Your task to perform on an android device: delete location history Image 0: 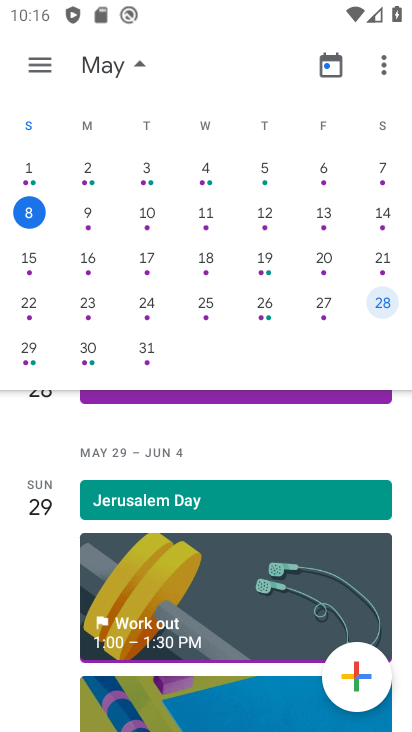
Step 0: press home button
Your task to perform on an android device: delete location history Image 1: 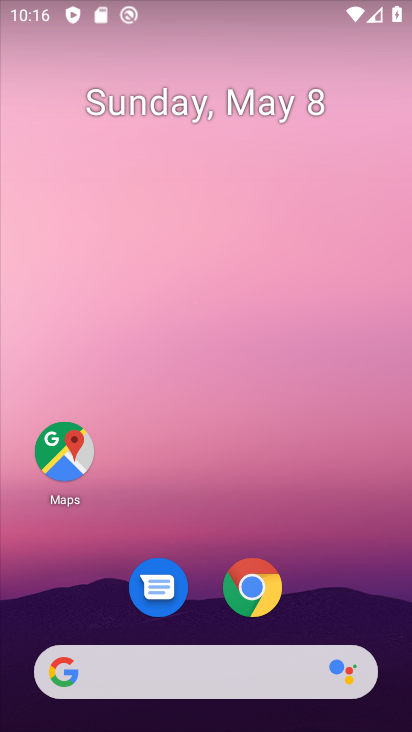
Step 1: click (56, 458)
Your task to perform on an android device: delete location history Image 2: 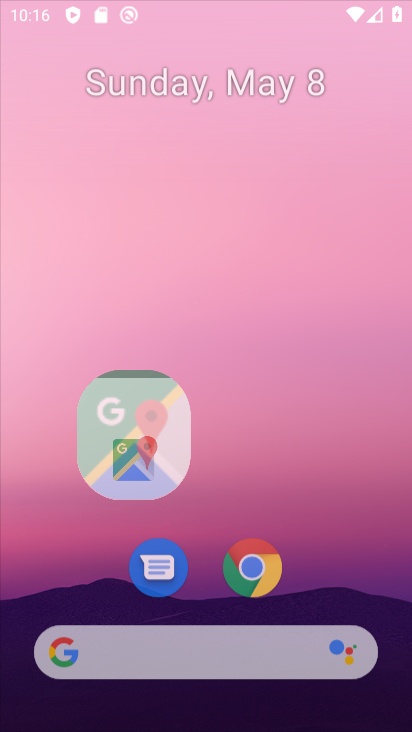
Step 2: click (56, 458)
Your task to perform on an android device: delete location history Image 3: 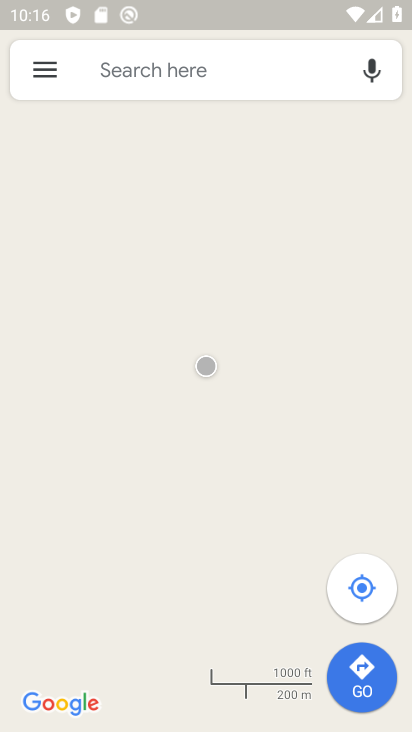
Step 3: click (50, 71)
Your task to perform on an android device: delete location history Image 4: 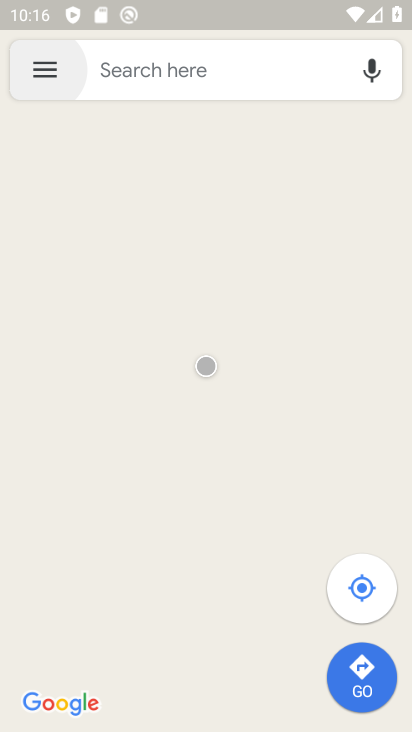
Step 4: click (37, 68)
Your task to perform on an android device: delete location history Image 5: 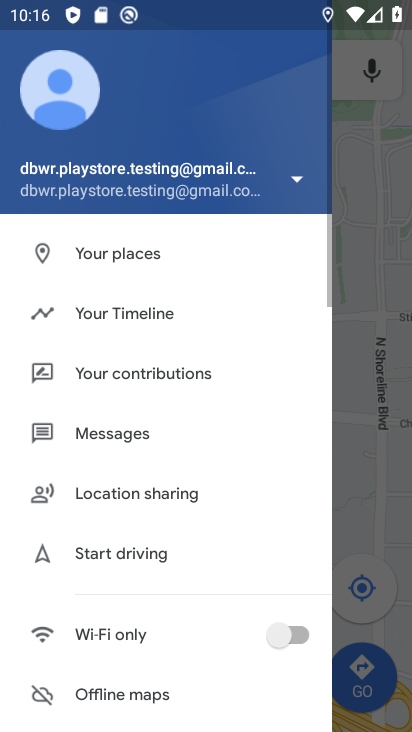
Step 5: click (139, 309)
Your task to perform on an android device: delete location history Image 6: 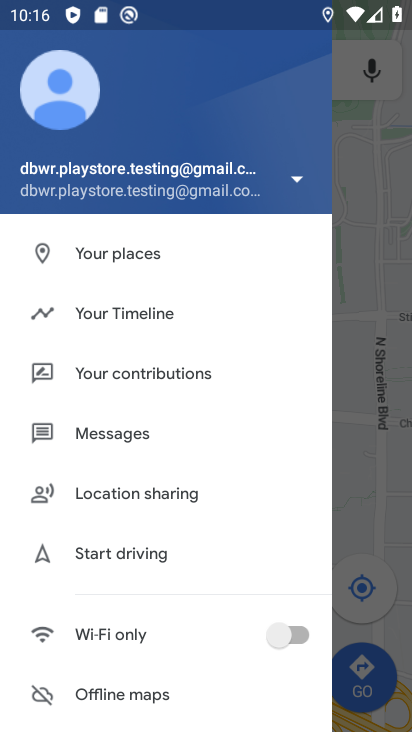
Step 6: click (142, 310)
Your task to perform on an android device: delete location history Image 7: 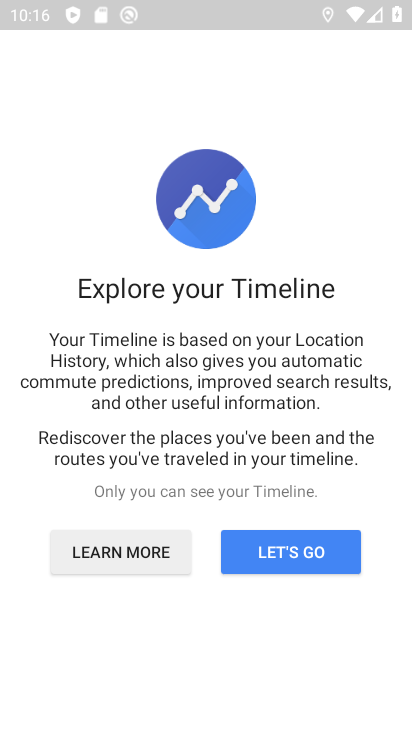
Step 7: click (142, 310)
Your task to perform on an android device: delete location history Image 8: 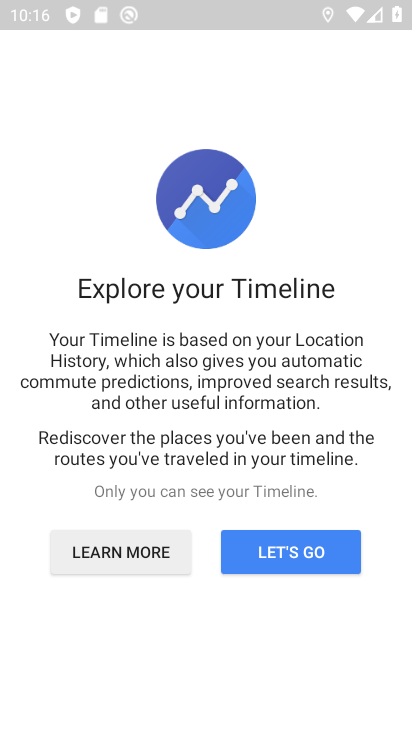
Step 8: click (290, 544)
Your task to perform on an android device: delete location history Image 9: 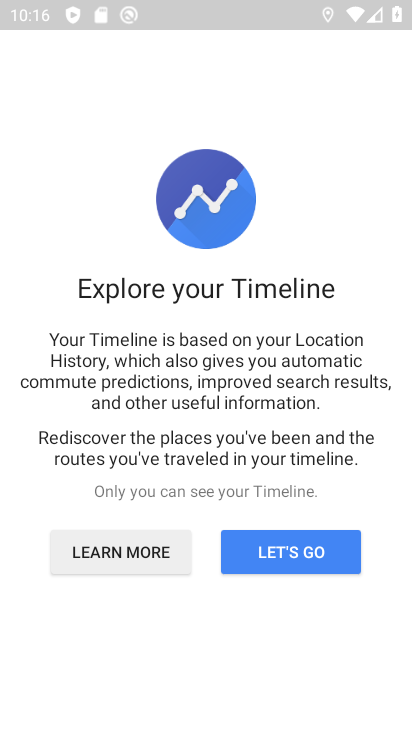
Step 9: click (288, 549)
Your task to perform on an android device: delete location history Image 10: 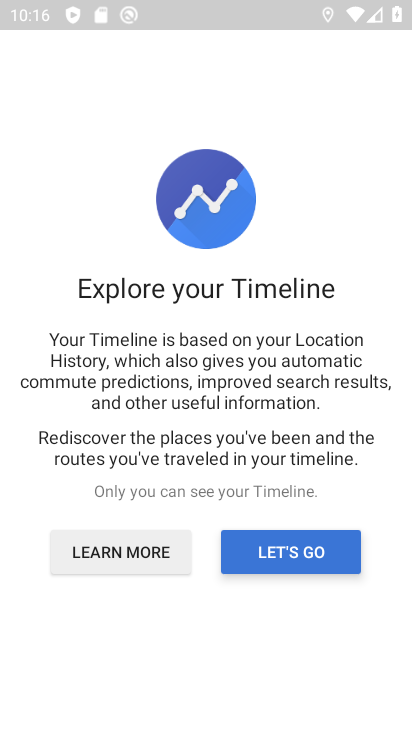
Step 10: click (288, 549)
Your task to perform on an android device: delete location history Image 11: 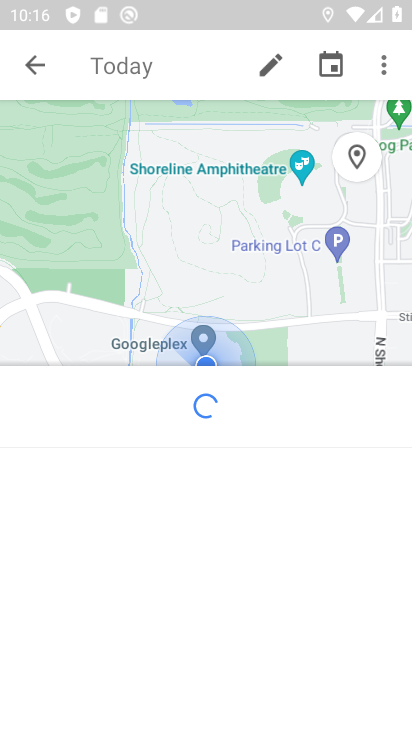
Step 11: click (294, 551)
Your task to perform on an android device: delete location history Image 12: 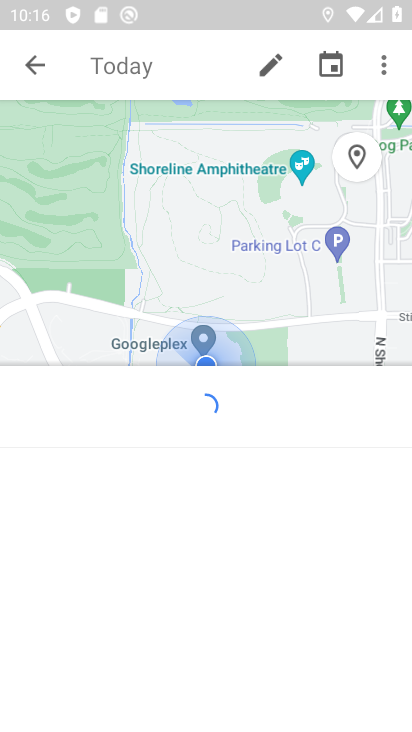
Step 12: click (298, 544)
Your task to perform on an android device: delete location history Image 13: 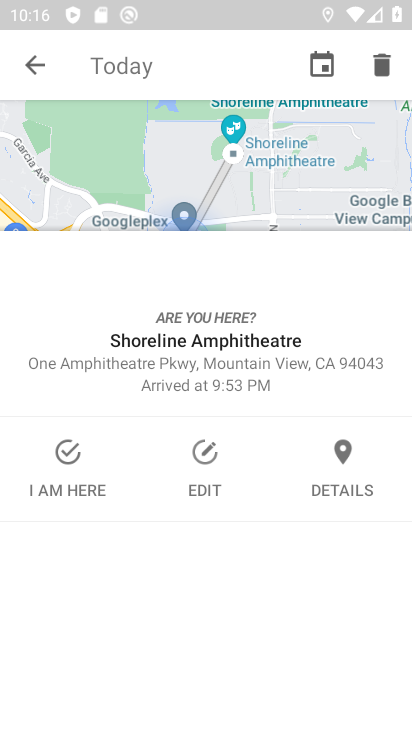
Step 13: drag from (378, 69) to (393, 512)
Your task to perform on an android device: delete location history Image 14: 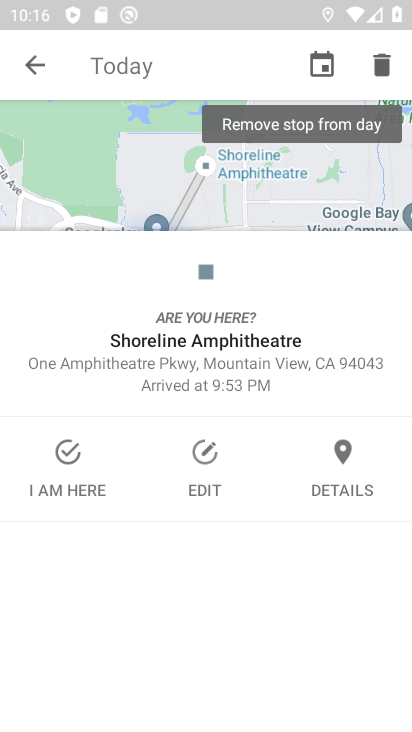
Step 14: click (173, 187)
Your task to perform on an android device: delete location history Image 15: 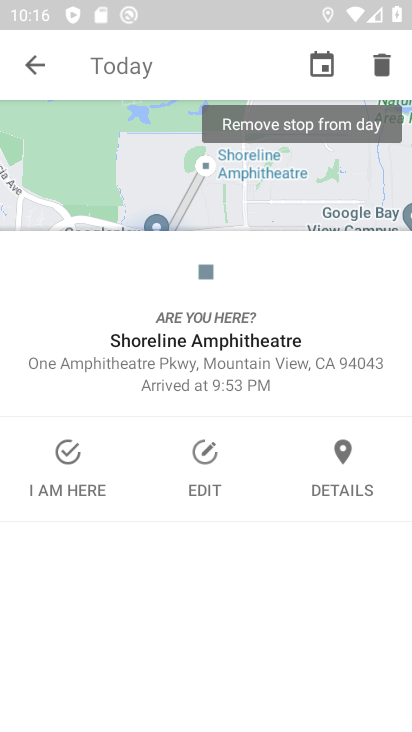
Step 15: click (171, 187)
Your task to perform on an android device: delete location history Image 16: 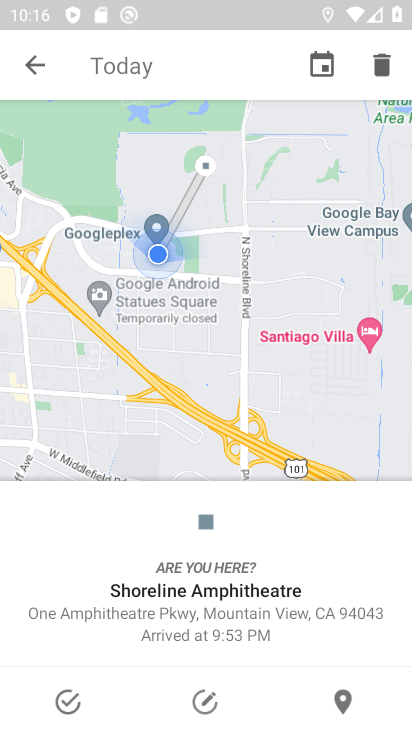
Step 16: click (171, 187)
Your task to perform on an android device: delete location history Image 17: 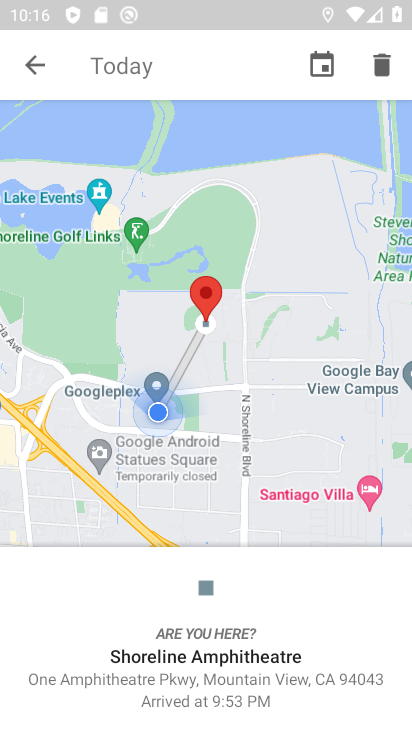
Step 17: click (170, 184)
Your task to perform on an android device: delete location history Image 18: 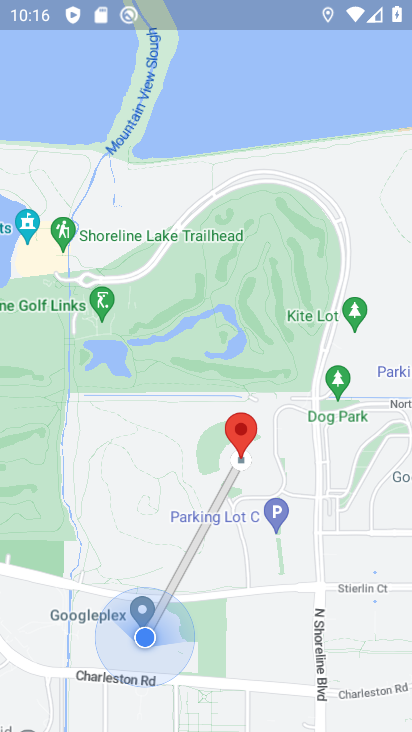
Step 18: drag from (140, 67) to (198, 511)
Your task to perform on an android device: delete location history Image 19: 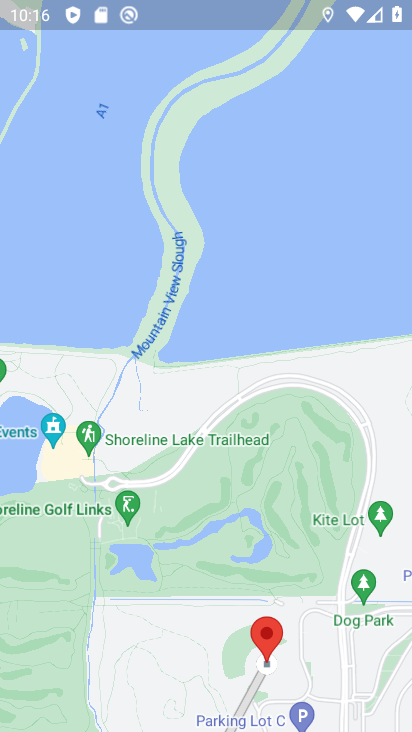
Step 19: drag from (188, 206) to (276, 614)
Your task to perform on an android device: delete location history Image 20: 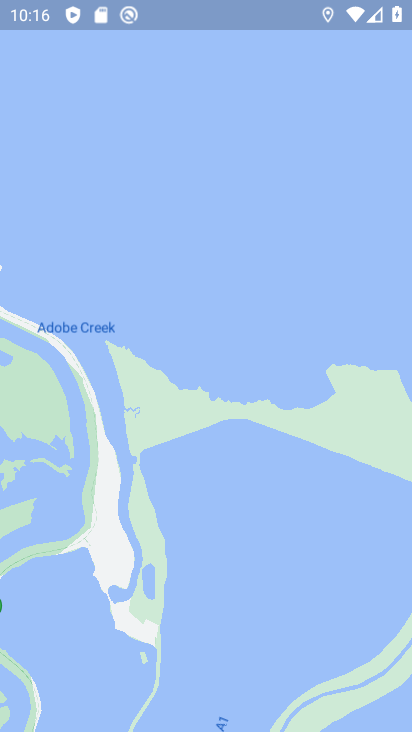
Step 20: drag from (135, 170) to (270, 677)
Your task to perform on an android device: delete location history Image 21: 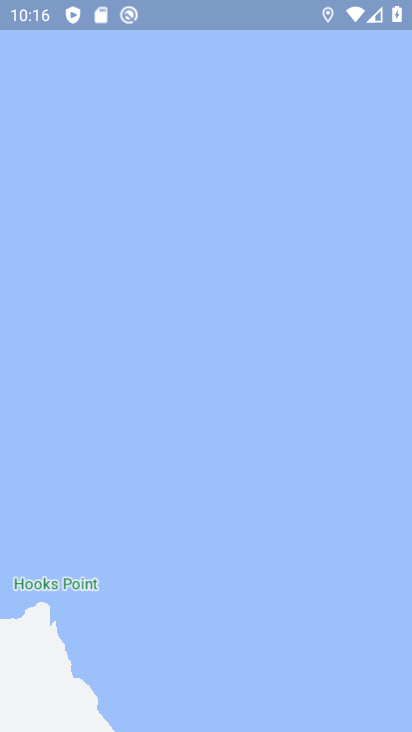
Step 21: drag from (144, 116) to (208, 597)
Your task to perform on an android device: delete location history Image 22: 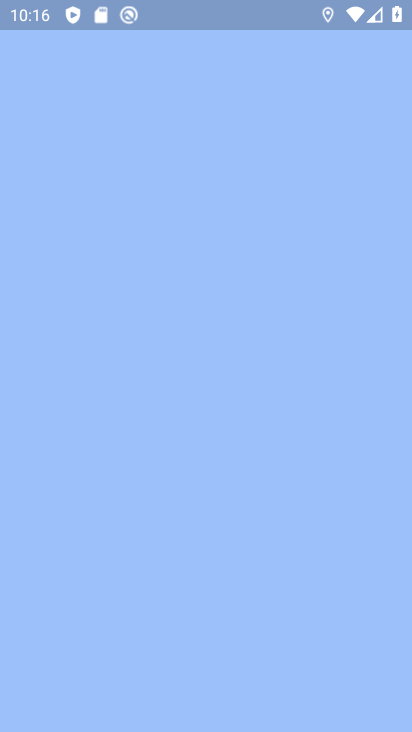
Step 22: press back button
Your task to perform on an android device: delete location history Image 23: 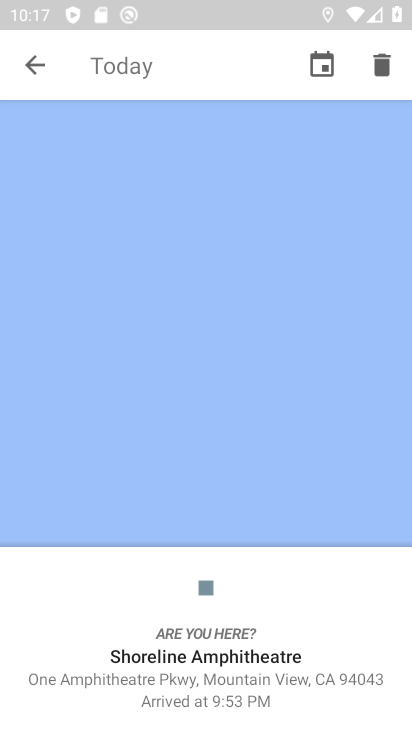
Step 23: click (23, 60)
Your task to perform on an android device: delete location history Image 24: 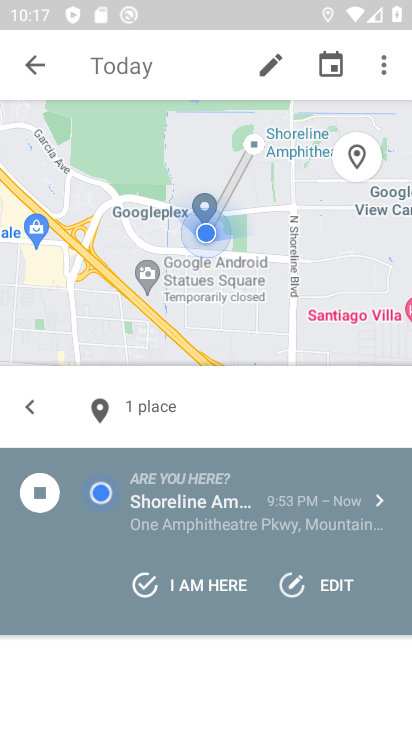
Step 24: click (383, 68)
Your task to perform on an android device: delete location history Image 25: 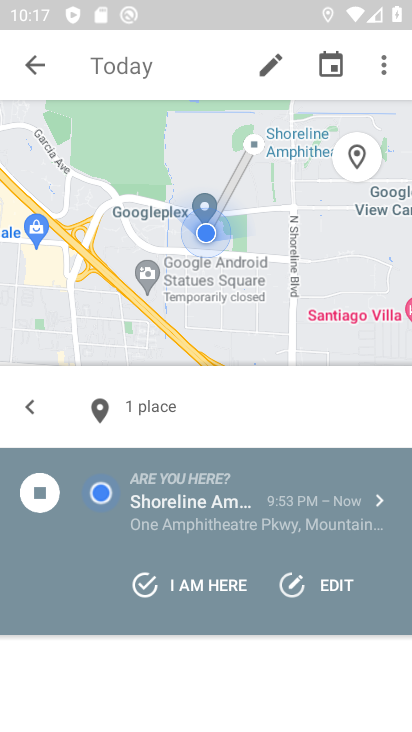
Step 25: click (394, 53)
Your task to perform on an android device: delete location history Image 26: 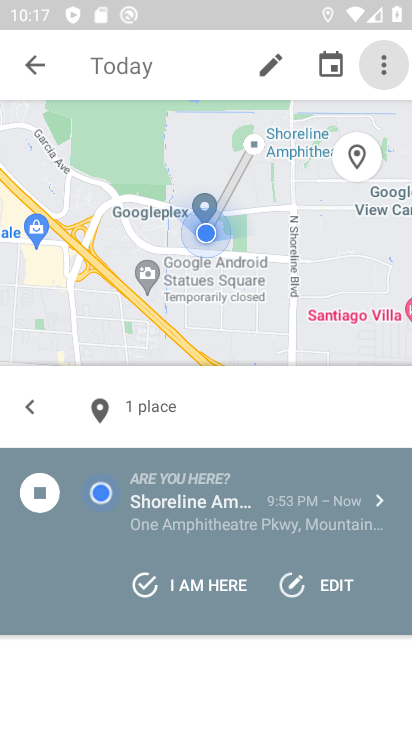
Step 26: click (379, 53)
Your task to perform on an android device: delete location history Image 27: 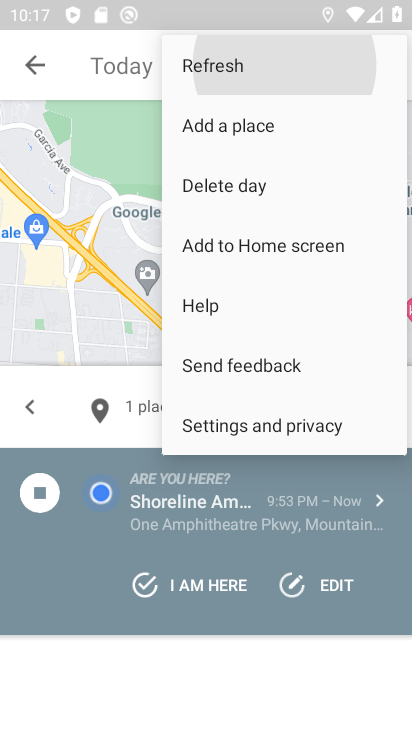
Step 27: click (385, 58)
Your task to perform on an android device: delete location history Image 28: 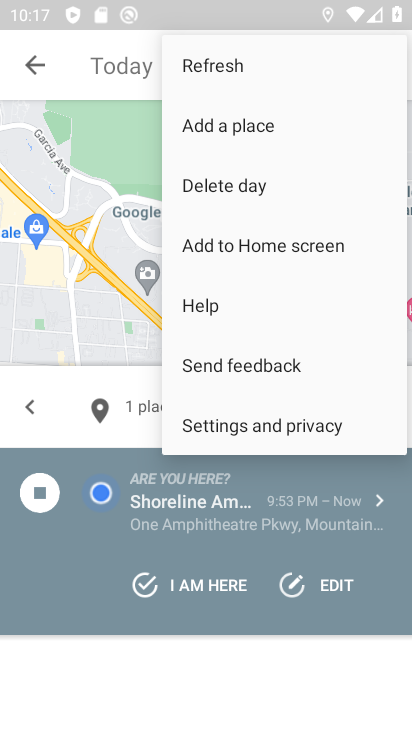
Step 28: click (262, 428)
Your task to perform on an android device: delete location history Image 29: 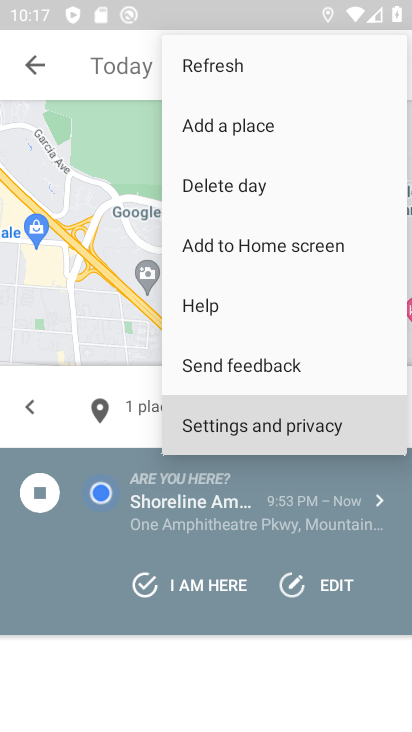
Step 29: click (262, 428)
Your task to perform on an android device: delete location history Image 30: 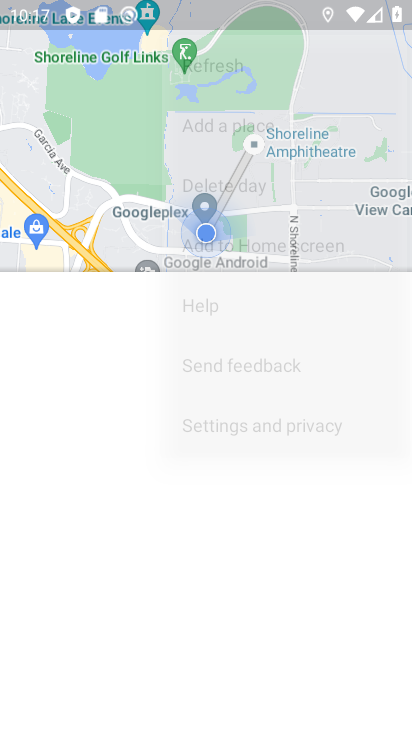
Step 30: click (262, 428)
Your task to perform on an android device: delete location history Image 31: 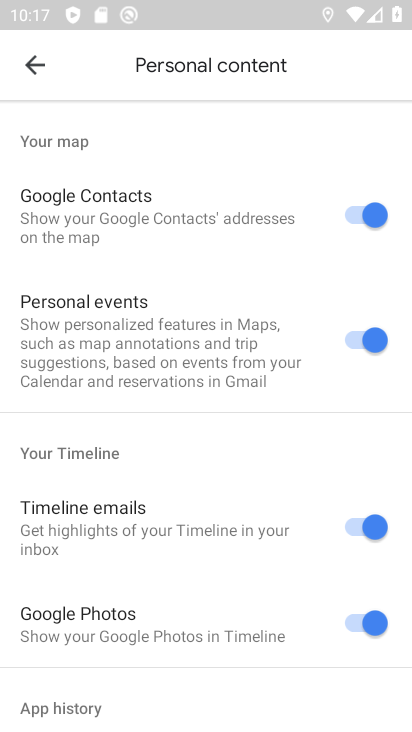
Step 31: drag from (128, 535) to (145, 296)
Your task to perform on an android device: delete location history Image 32: 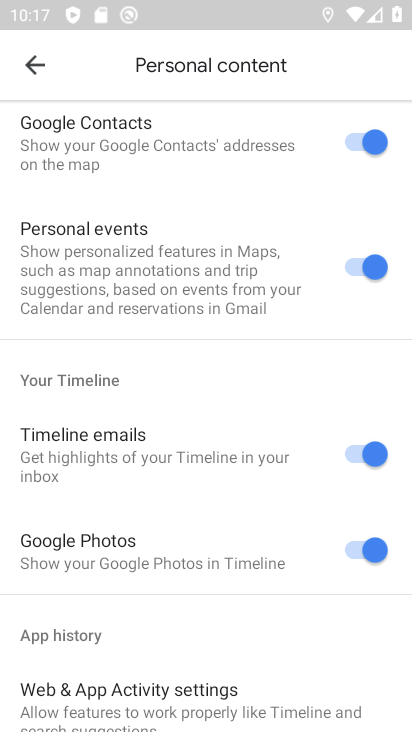
Step 32: click (41, 70)
Your task to perform on an android device: delete location history Image 33: 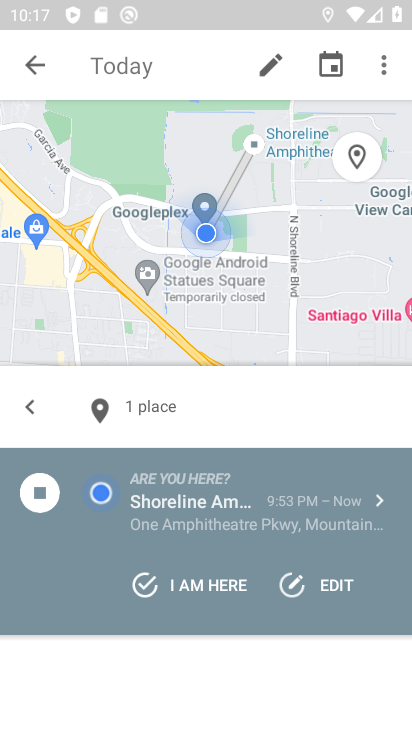
Step 33: click (375, 70)
Your task to perform on an android device: delete location history Image 34: 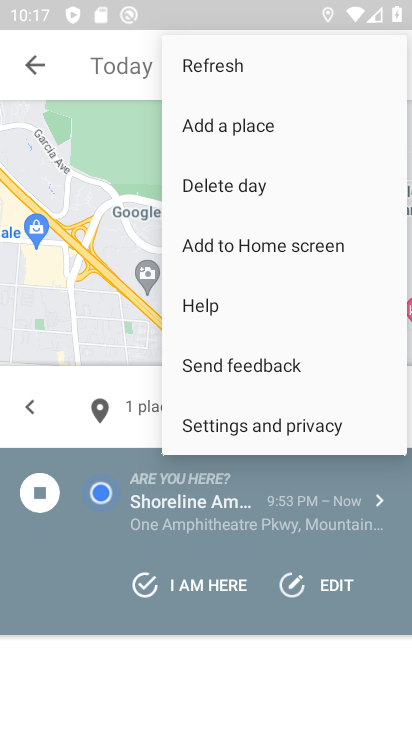
Step 34: click (261, 427)
Your task to perform on an android device: delete location history Image 35: 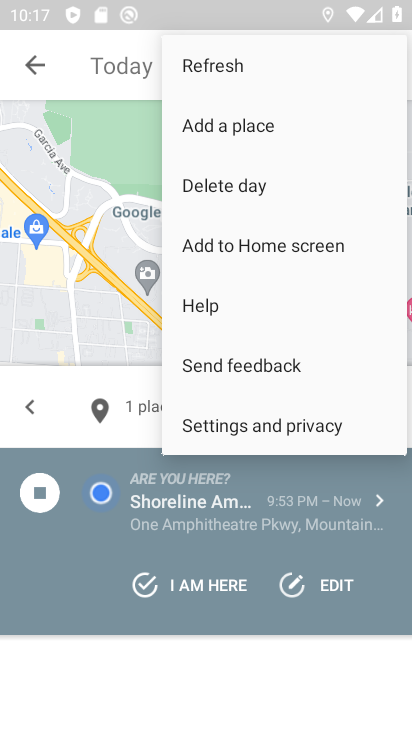
Step 35: click (262, 428)
Your task to perform on an android device: delete location history Image 36: 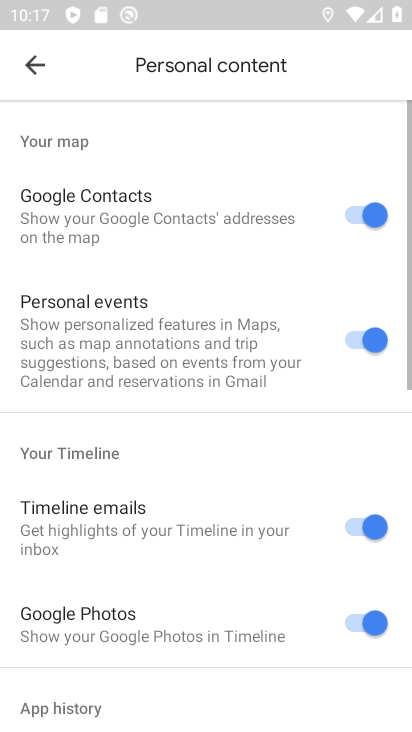
Step 36: drag from (163, 570) to (171, 228)
Your task to perform on an android device: delete location history Image 37: 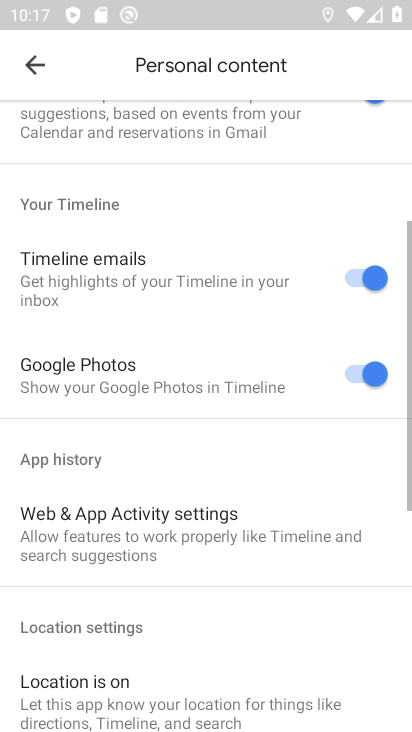
Step 37: drag from (198, 463) to (178, 223)
Your task to perform on an android device: delete location history Image 38: 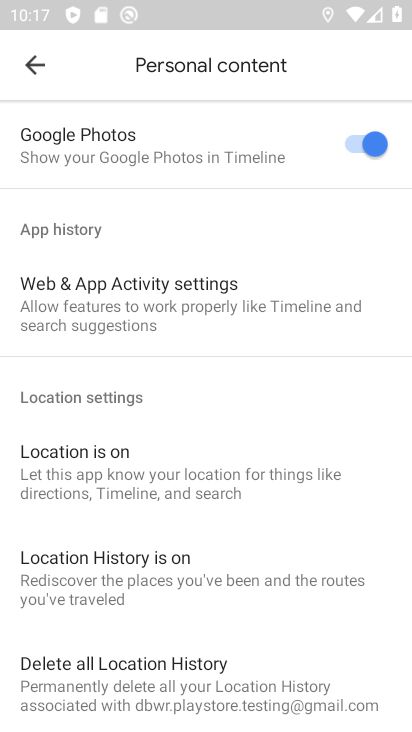
Step 38: click (116, 571)
Your task to perform on an android device: delete location history Image 39: 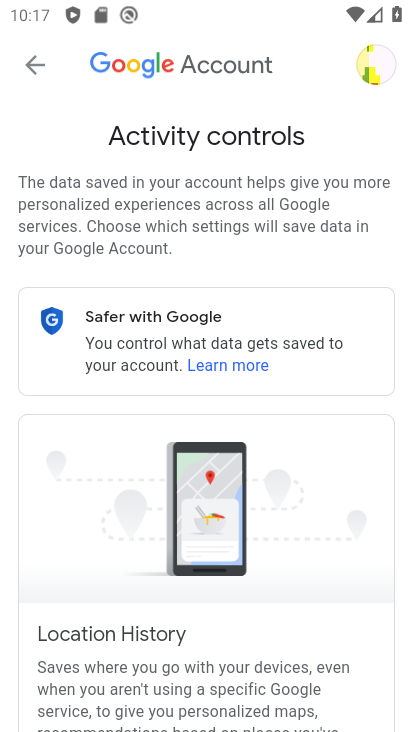
Step 39: task complete